Your task to perform on an android device: Go to Maps Image 0: 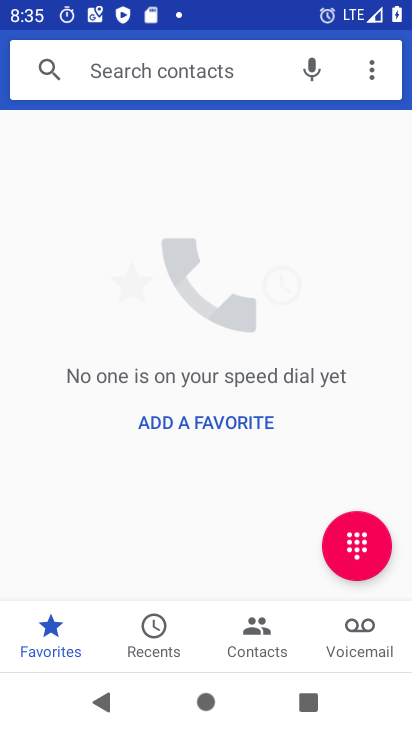
Step 0: press home button
Your task to perform on an android device: Go to Maps Image 1: 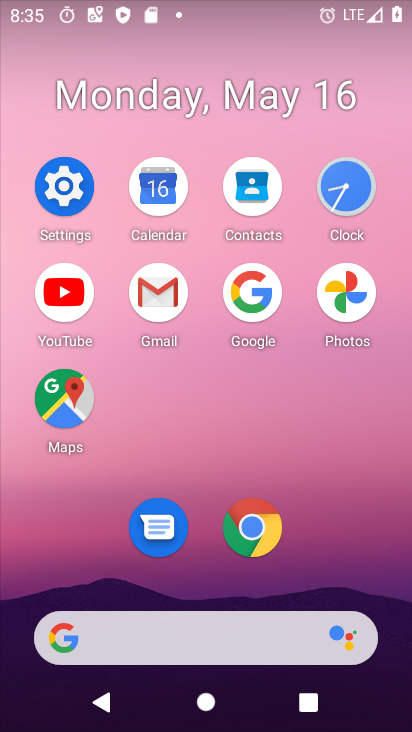
Step 1: click (61, 408)
Your task to perform on an android device: Go to Maps Image 2: 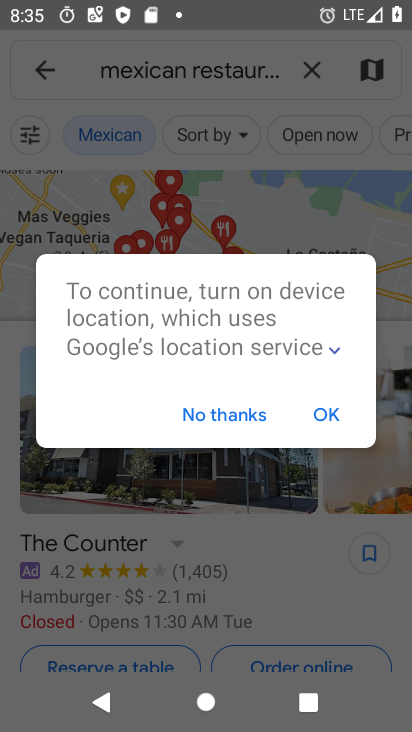
Step 2: task complete